Your task to perform on an android device: turn off smart reply in the gmail app Image 0: 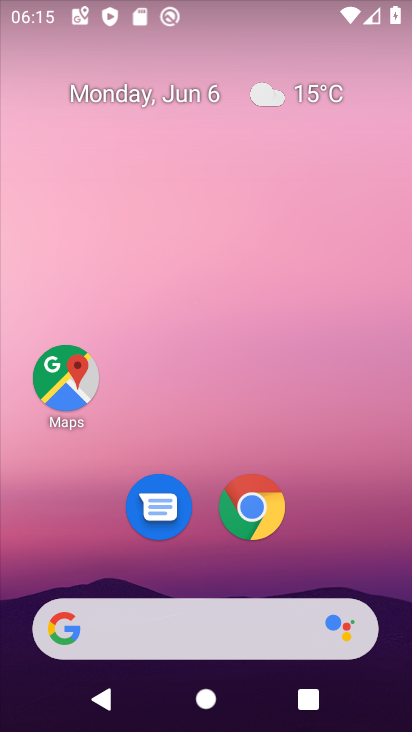
Step 0: drag from (171, 577) to (228, 3)
Your task to perform on an android device: turn off smart reply in the gmail app Image 1: 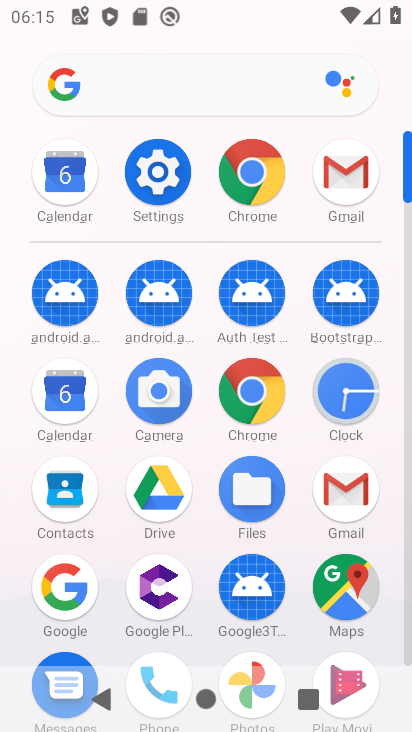
Step 1: click (351, 181)
Your task to perform on an android device: turn off smart reply in the gmail app Image 2: 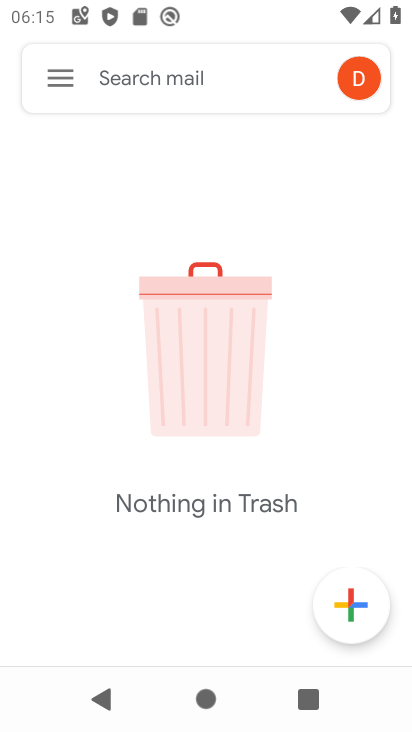
Step 2: click (58, 77)
Your task to perform on an android device: turn off smart reply in the gmail app Image 3: 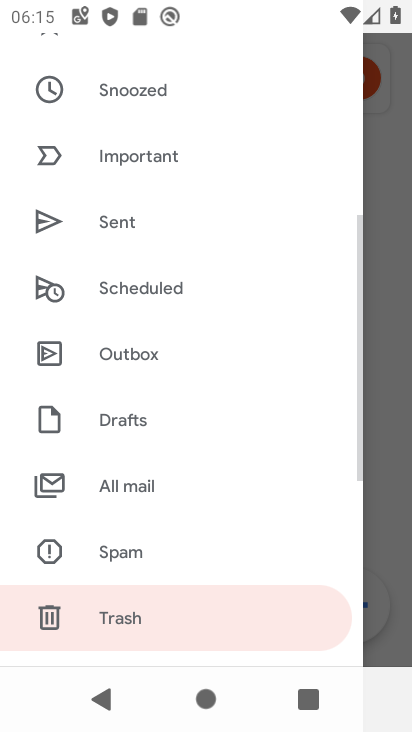
Step 3: drag from (120, 609) to (146, 246)
Your task to perform on an android device: turn off smart reply in the gmail app Image 4: 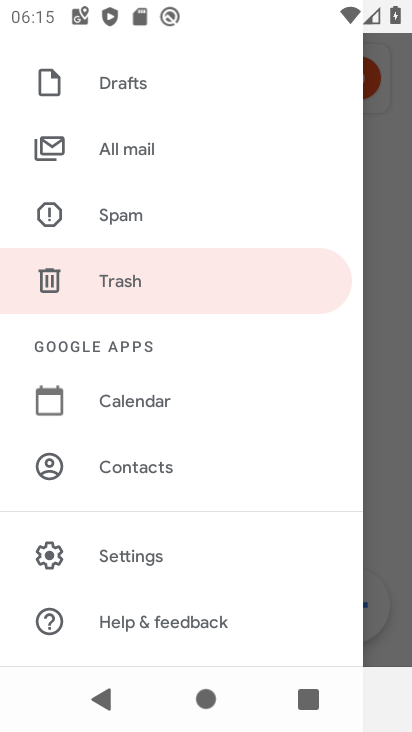
Step 4: click (171, 557)
Your task to perform on an android device: turn off smart reply in the gmail app Image 5: 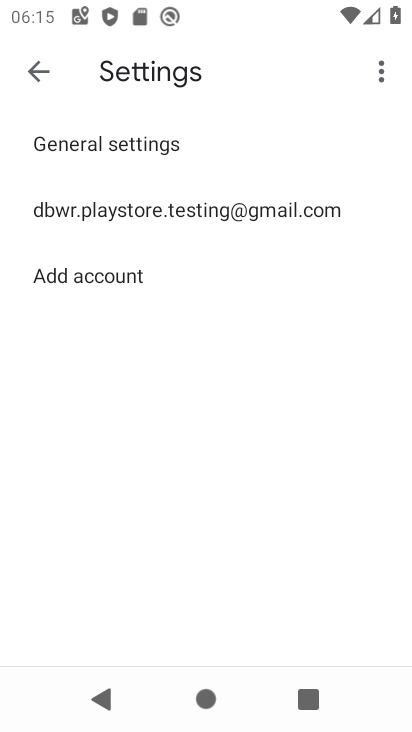
Step 5: click (128, 221)
Your task to perform on an android device: turn off smart reply in the gmail app Image 6: 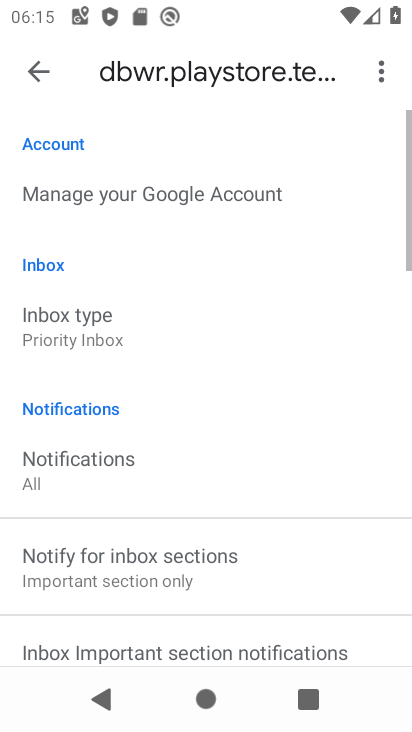
Step 6: drag from (150, 690) to (124, 194)
Your task to perform on an android device: turn off smart reply in the gmail app Image 7: 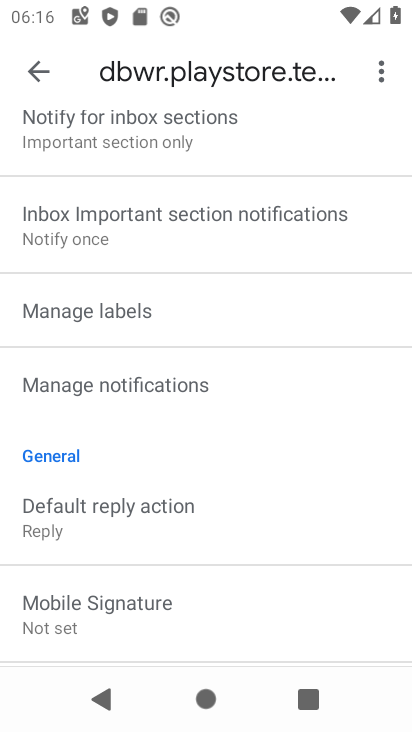
Step 7: drag from (108, 549) to (108, 265)
Your task to perform on an android device: turn off smart reply in the gmail app Image 8: 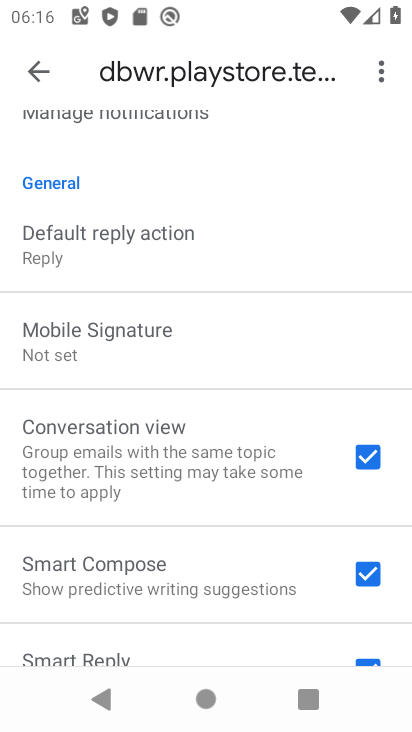
Step 8: drag from (146, 654) to (159, 271)
Your task to perform on an android device: turn off smart reply in the gmail app Image 9: 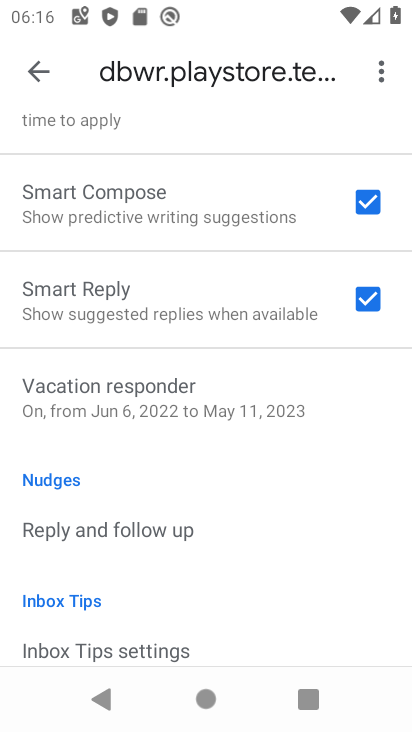
Step 9: drag from (143, 584) to (137, 223)
Your task to perform on an android device: turn off smart reply in the gmail app Image 10: 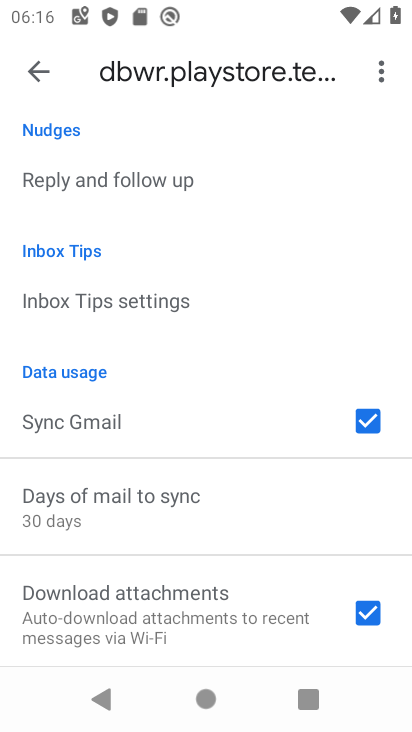
Step 10: drag from (147, 572) to (203, 382)
Your task to perform on an android device: turn off smart reply in the gmail app Image 11: 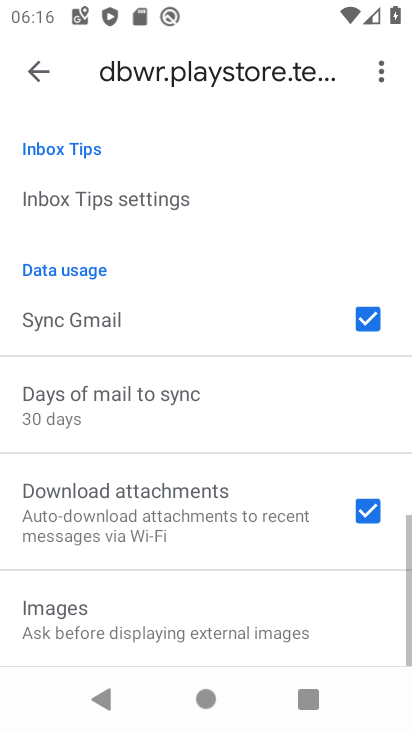
Step 11: drag from (218, 584) to (235, 294)
Your task to perform on an android device: turn off smart reply in the gmail app Image 12: 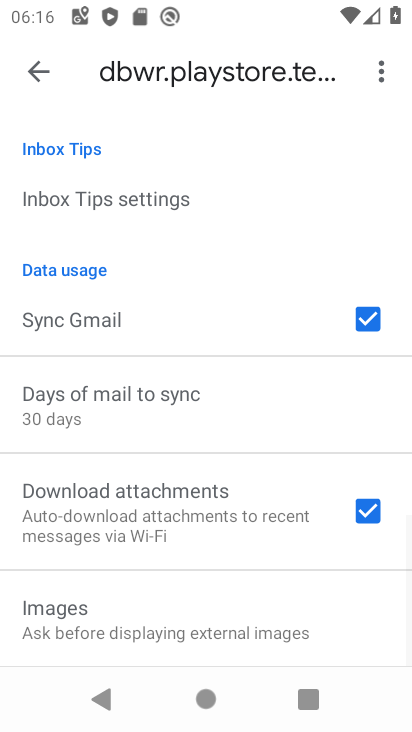
Step 12: drag from (226, 495) to (225, 206)
Your task to perform on an android device: turn off smart reply in the gmail app Image 13: 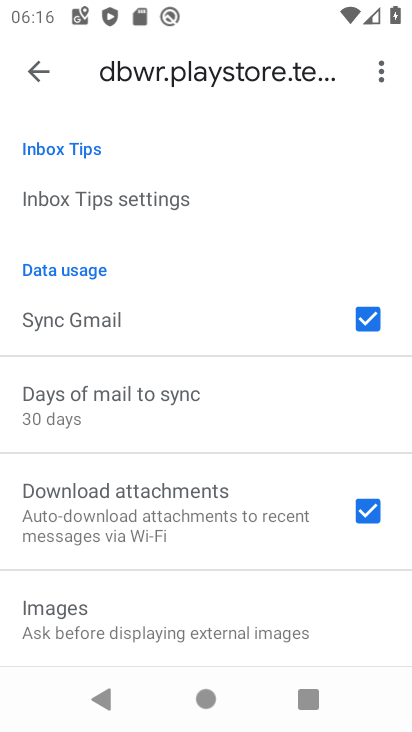
Step 13: drag from (284, 422) to (280, 3)
Your task to perform on an android device: turn off smart reply in the gmail app Image 14: 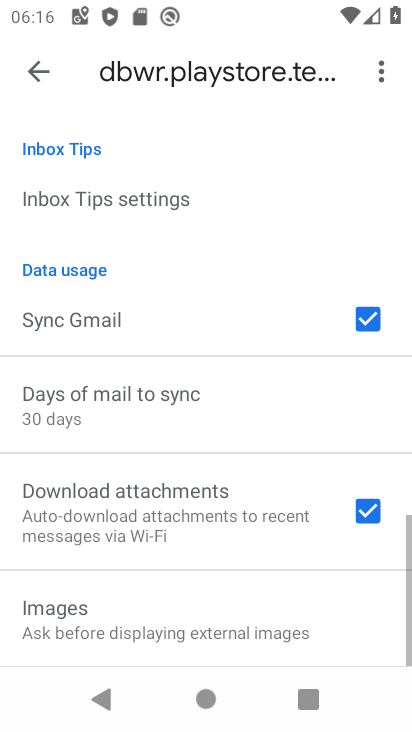
Step 14: drag from (217, 247) to (140, 721)
Your task to perform on an android device: turn off smart reply in the gmail app Image 15: 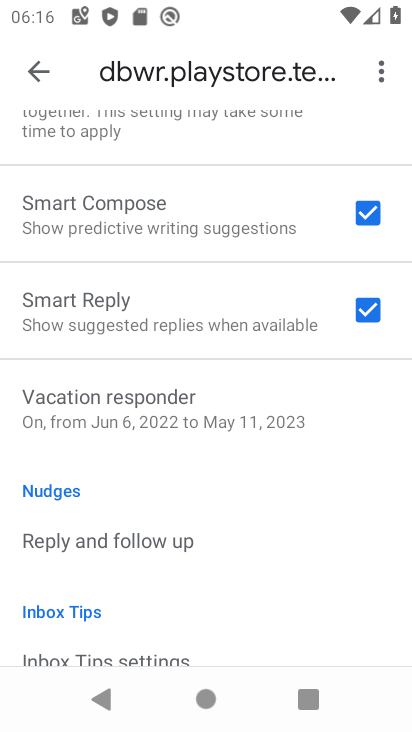
Step 15: drag from (188, 580) to (214, 716)
Your task to perform on an android device: turn off smart reply in the gmail app Image 16: 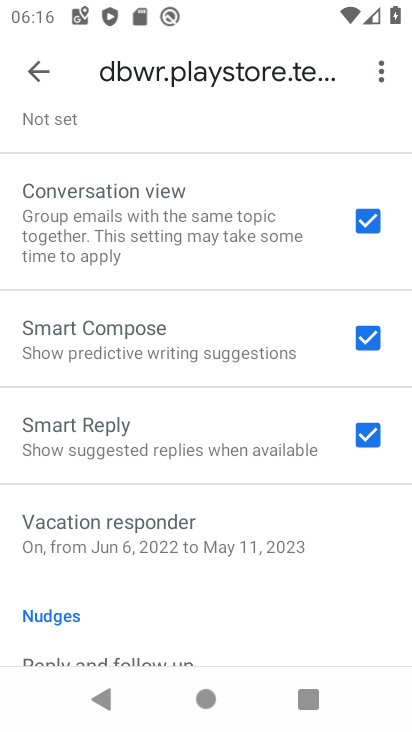
Step 16: click (357, 441)
Your task to perform on an android device: turn off smart reply in the gmail app Image 17: 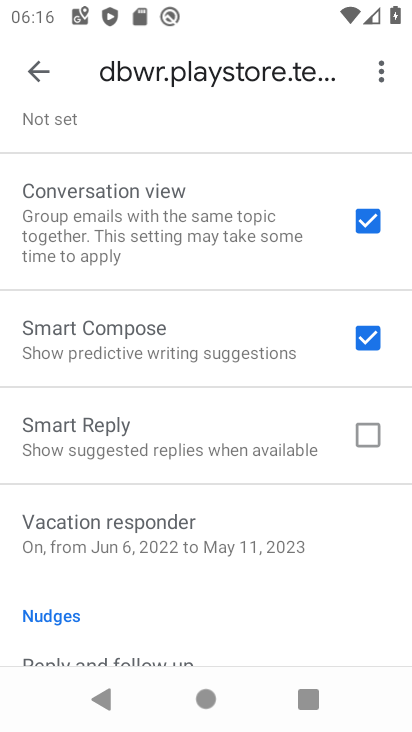
Step 17: task complete